Your task to perform on an android device: turn off wifi Image 0: 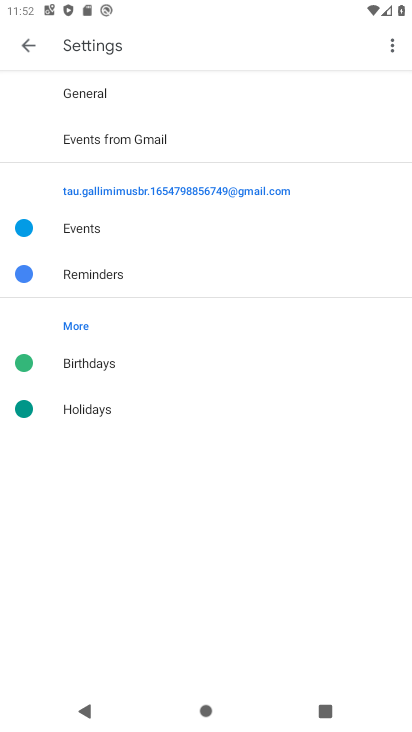
Step 0: press home button
Your task to perform on an android device: turn off wifi Image 1: 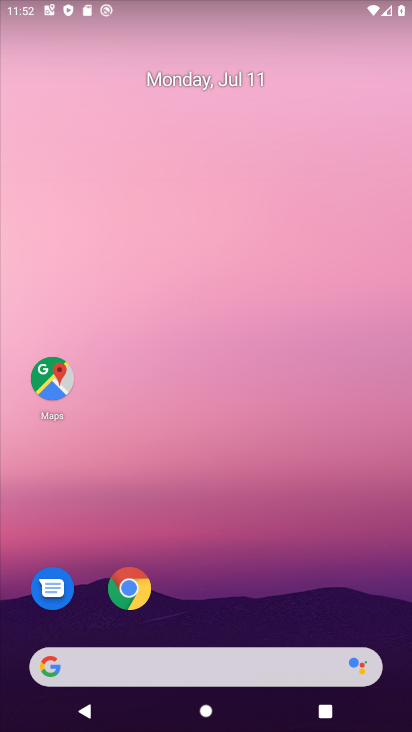
Step 1: drag from (293, 577) to (199, 81)
Your task to perform on an android device: turn off wifi Image 2: 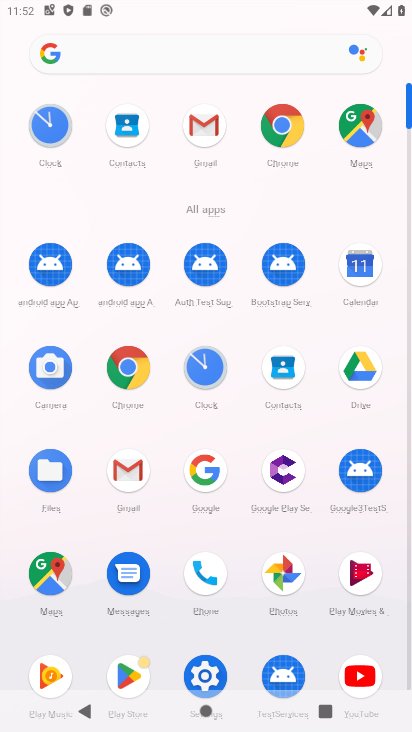
Step 2: click (209, 672)
Your task to perform on an android device: turn off wifi Image 3: 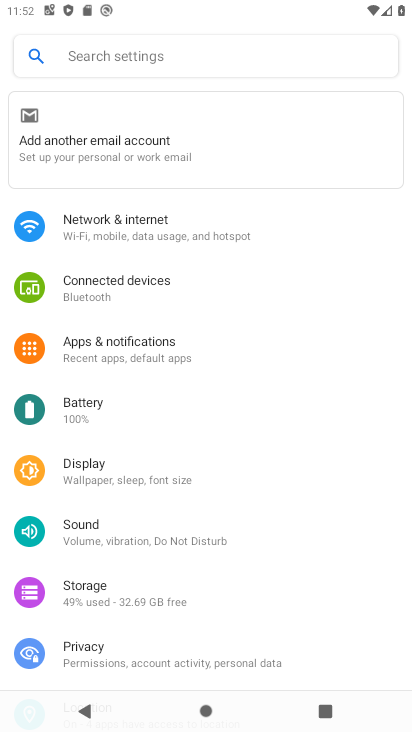
Step 3: click (141, 230)
Your task to perform on an android device: turn off wifi Image 4: 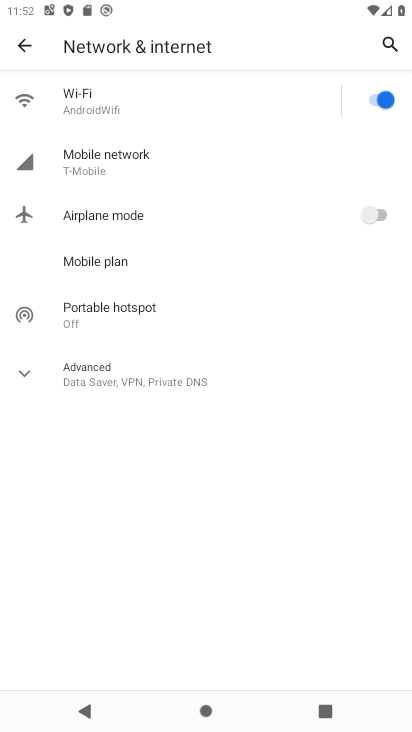
Step 4: click (382, 98)
Your task to perform on an android device: turn off wifi Image 5: 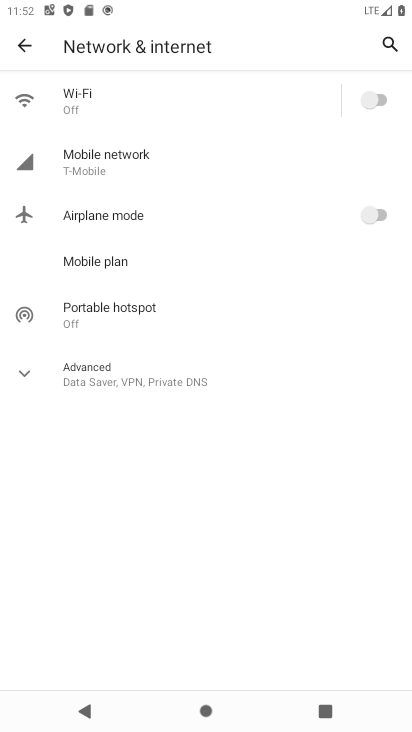
Step 5: task complete